Your task to perform on an android device: turn pop-ups on in chrome Image 0: 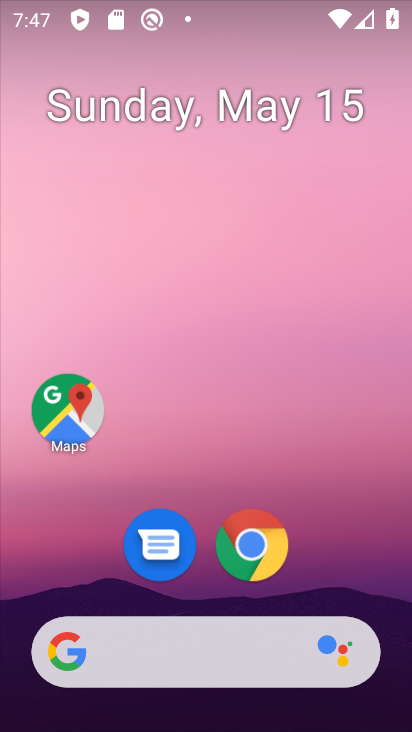
Step 0: drag from (372, 511) to (370, 123)
Your task to perform on an android device: turn pop-ups on in chrome Image 1: 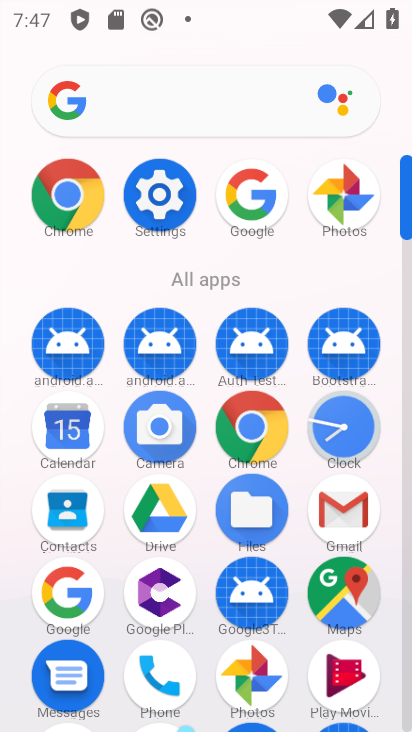
Step 1: click (250, 446)
Your task to perform on an android device: turn pop-ups on in chrome Image 2: 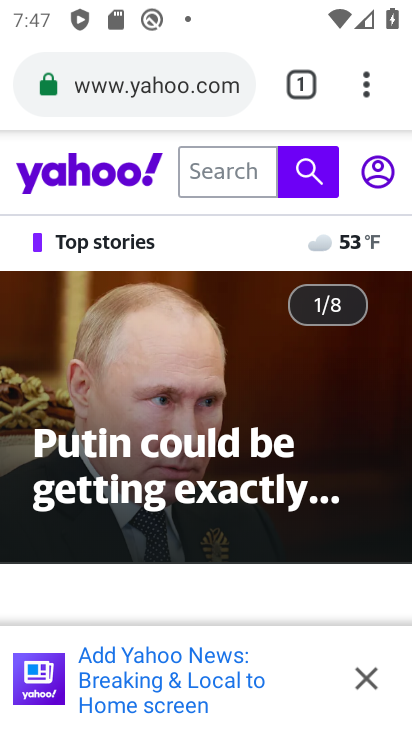
Step 2: click (367, 85)
Your task to perform on an android device: turn pop-ups on in chrome Image 3: 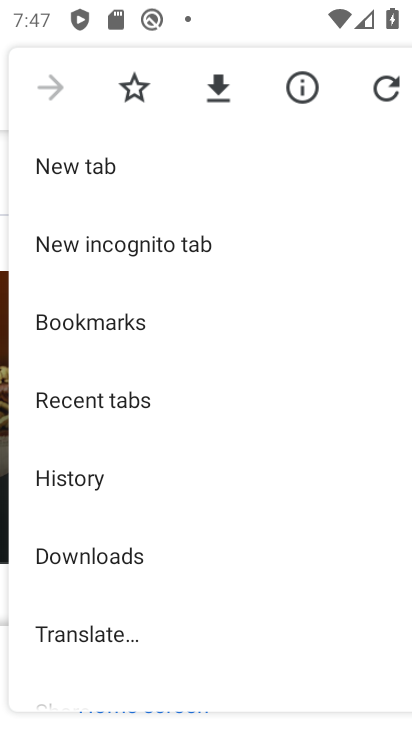
Step 3: drag from (279, 567) to (300, 346)
Your task to perform on an android device: turn pop-ups on in chrome Image 4: 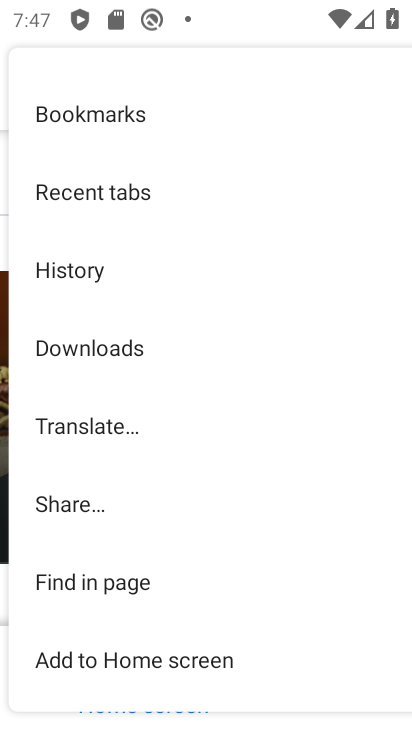
Step 4: drag from (285, 581) to (317, 401)
Your task to perform on an android device: turn pop-ups on in chrome Image 5: 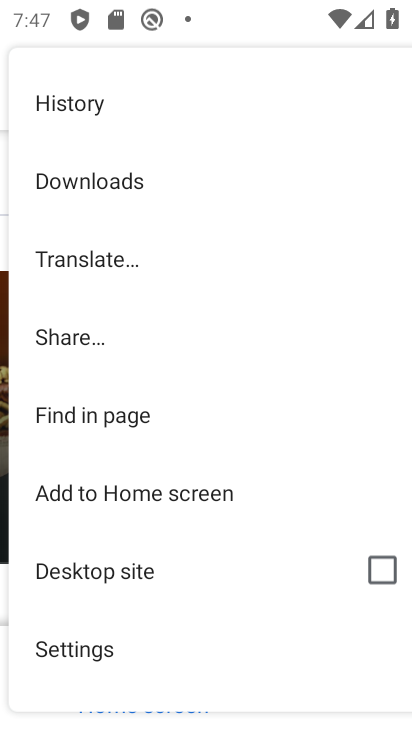
Step 5: drag from (293, 608) to (315, 374)
Your task to perform on an android device: turn pop-ups on in chrome Image 6: 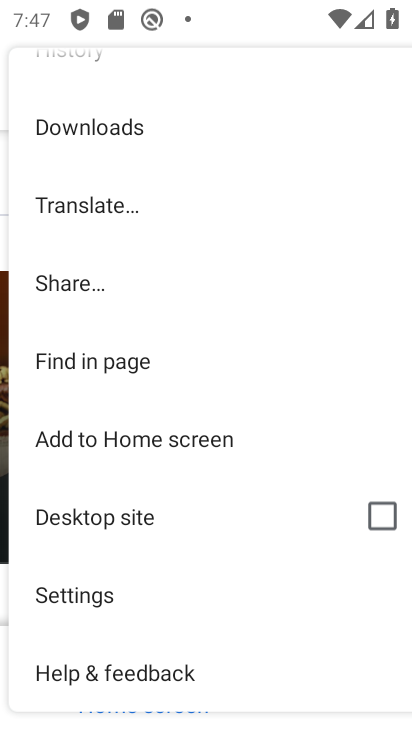
Step 6: click (77, 597)
Your task to perform on an android device: turn pop-ups on in chrome Image 7: 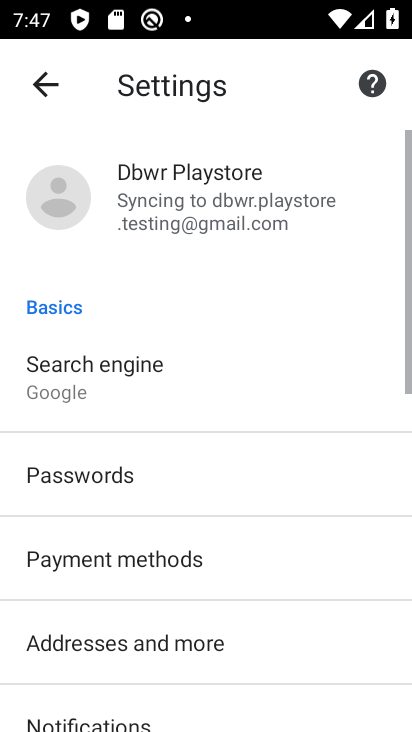
Step 7: drag from (274, 635) to (283, 362)
Your task to perform on an android device: turn pop-ups on in chrome Image 8: 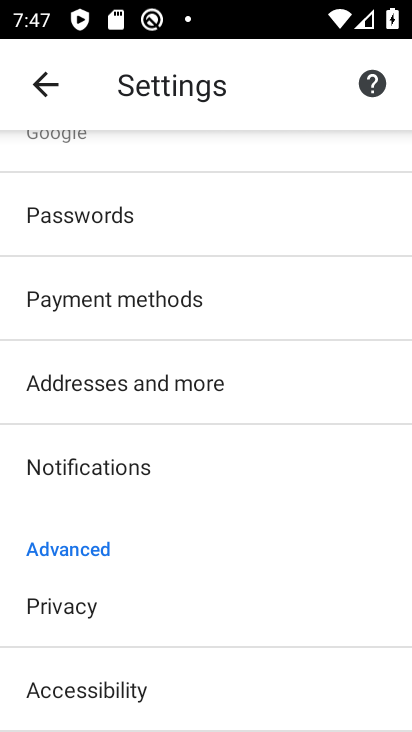
Step 8: drag from (292, 648) to (315, 453)
Your task to perform on an android device: turn pop-ups on in chrome Image 9: 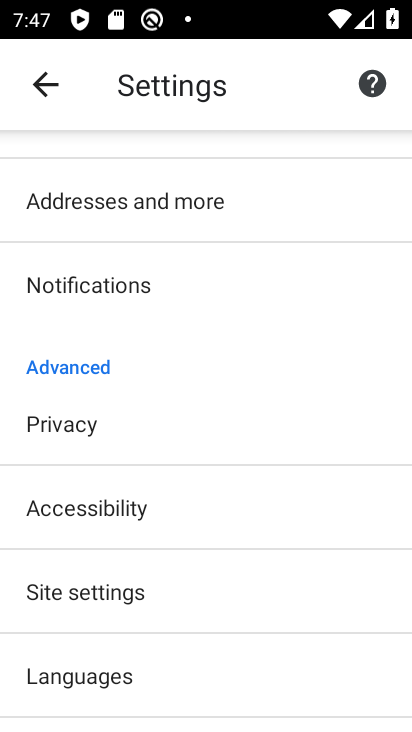
Step 9: drag from (312, 689) to (311, 447)
Your task to perform on an android device: turn pop-ups on in chrome Image 10: 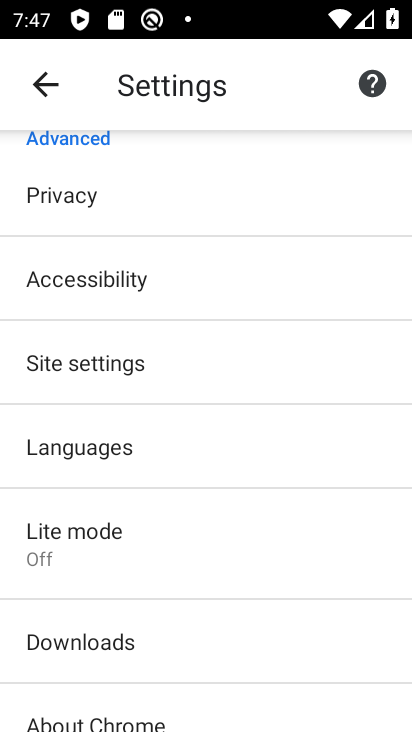
Step 10: drag from (331, 696) to (333, 479)
Your task to perform on an android device: turn pop-ups on in chrome Image 11: 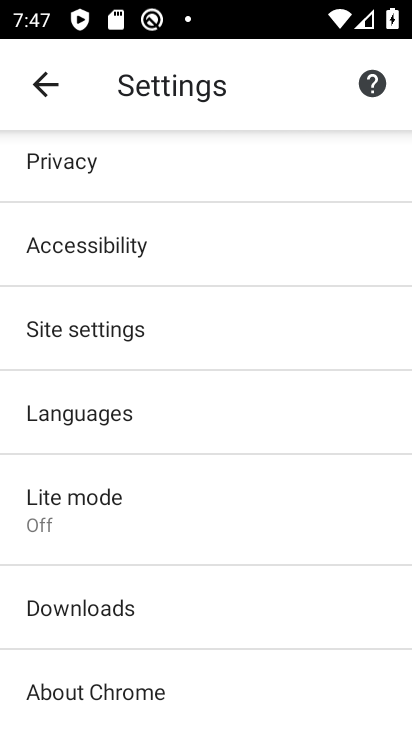
Step 11: click (251, 317)
Your task to perform on an android device: turn pop-ups on in chrome Image 12: 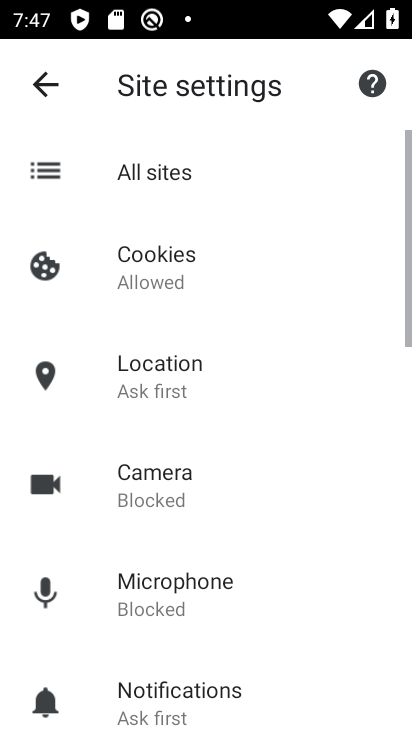
Step 12: drag from (312, 611) to (315, 459)
Your task to perform on an android device: turn pop-ups on in chrome Image 13: 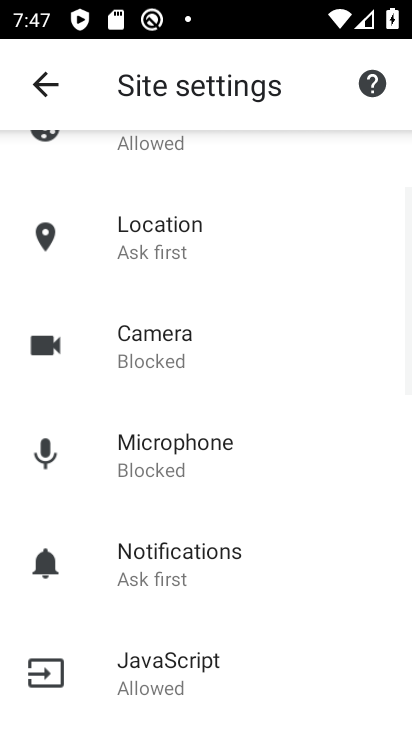
Step 13: drag from (324, 629) to (314, 472)
Your task to perform on an android device: turn pop-ups on in chrome Image 14: 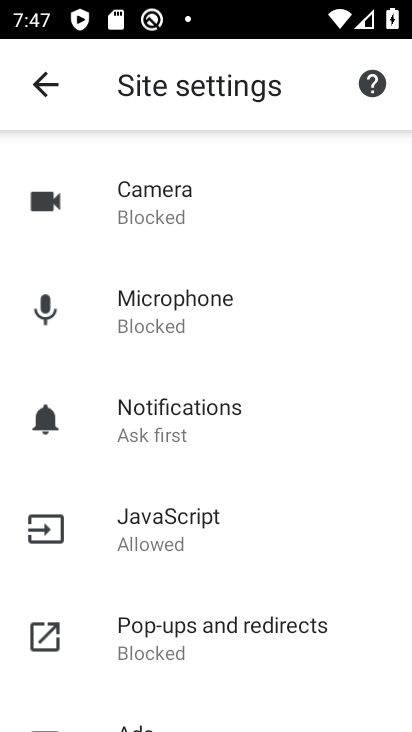
Step 14: drag from (345, 652) to (345, 469)
Your task to perform on an android device: turn pop-ups on in chrome Image 15: 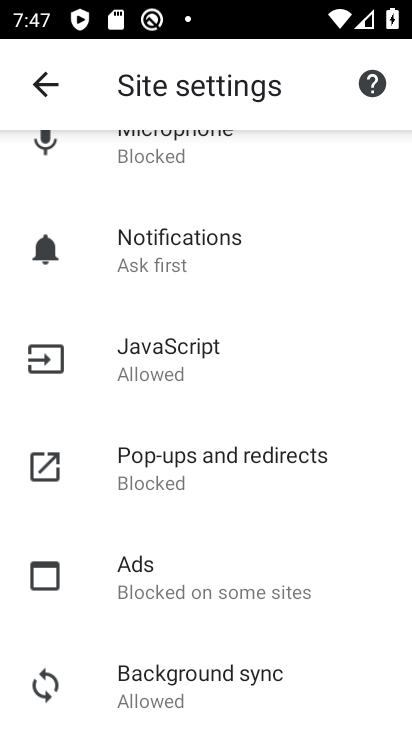
Step 15: click (225, 472)
Your task to perform on an android device: turn pop-ups on in chrome Image 16: 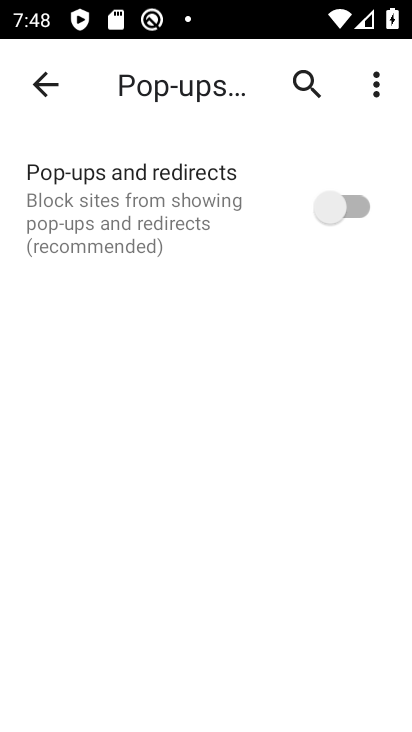
Step 16: click (358, 215)
Your task to perform on an android device: turn pop-ups on in chrome Image 17: 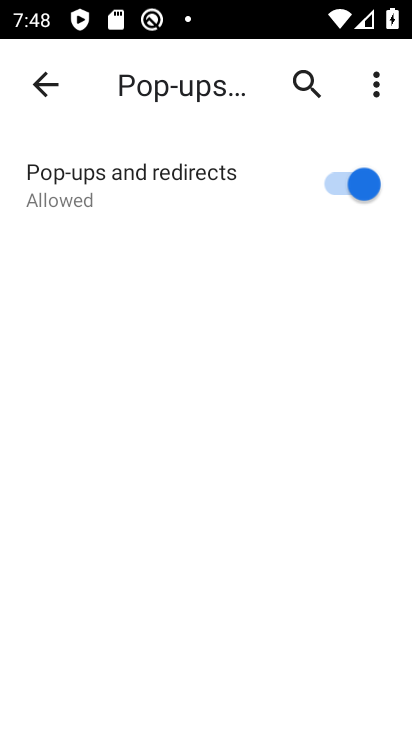
Step 17: task complete